Your task to perform on an android device: Go to display settings Image 0: 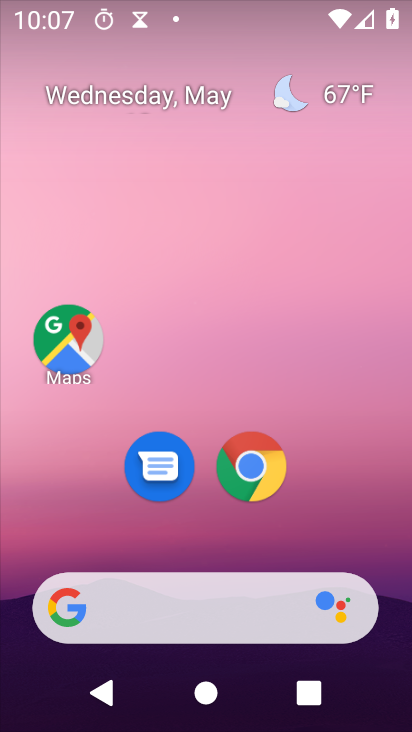
Step 0: drag from (332, 536) to (265, 263)
Your task to perform on an android device: Go to display settings Image 1: 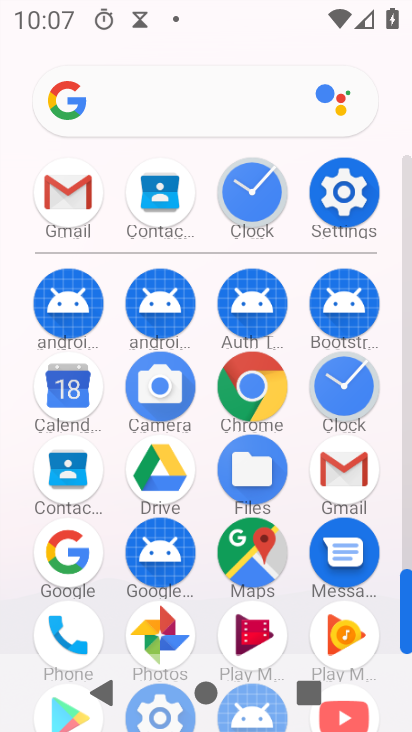
Step 1: click (349, 207)
Your task to perform on an android device: Go to display settings Image 2: 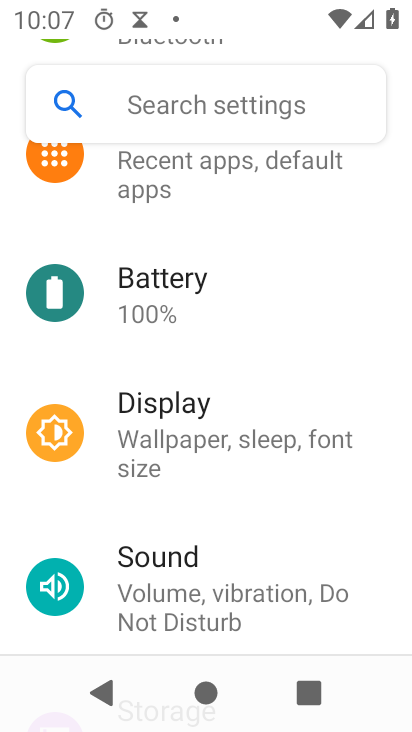
Step 2: click (202, 430)
Your task to perform on an android device: Go to display settings Image 3: 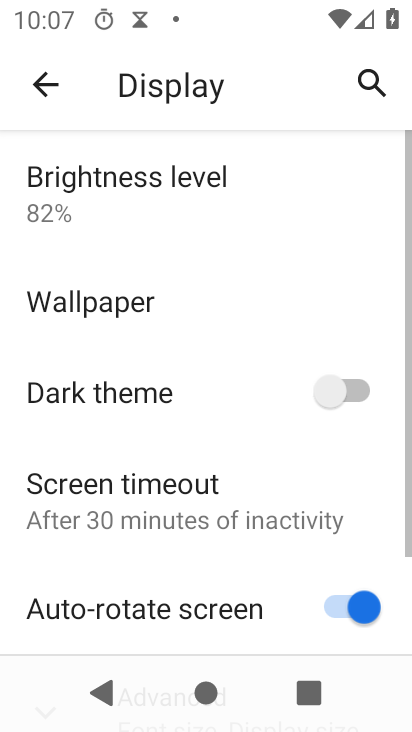
Step 3: task complete